Your task to perform on an android device: Go to sound settings Image 0: 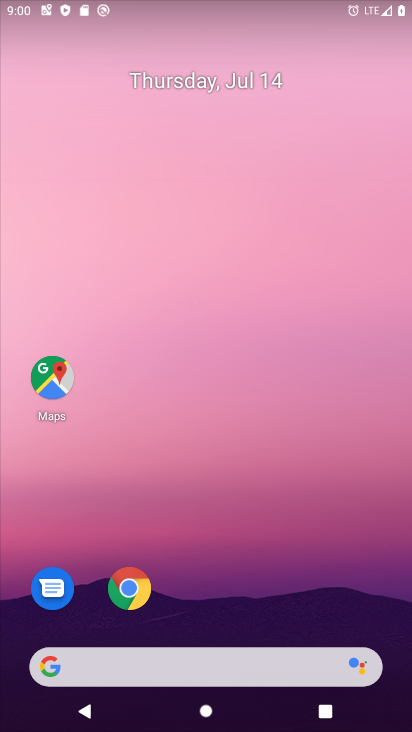
Step 0: drag from (241, 473) to (250, 99)
Your task to perform on an android device: Go to sound settings Image 1: 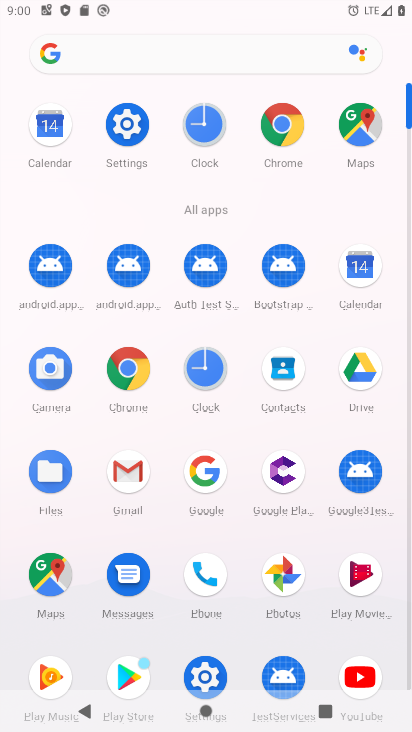
Step 1: click (125, 124)
Your task to perform on an android device: Go to sound settings Image 2: 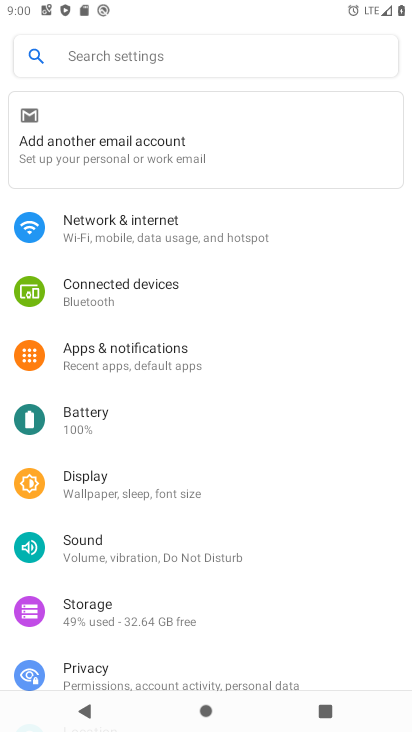
Step 2: click (84, 552)
Your task to perform on an android device: Go to sound settings Image 3: 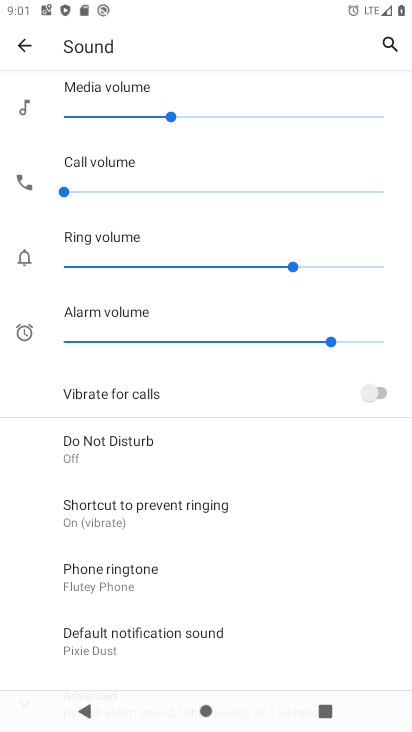
Step 3: task complete